Your task to perform on an android device: Open eBay Image 0: 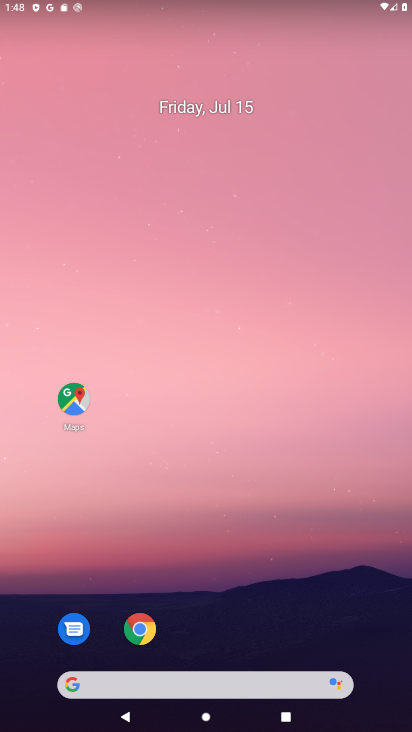
Step 0: click (139, 625)
Your task to perform on an android device: Open eBay Image 1: 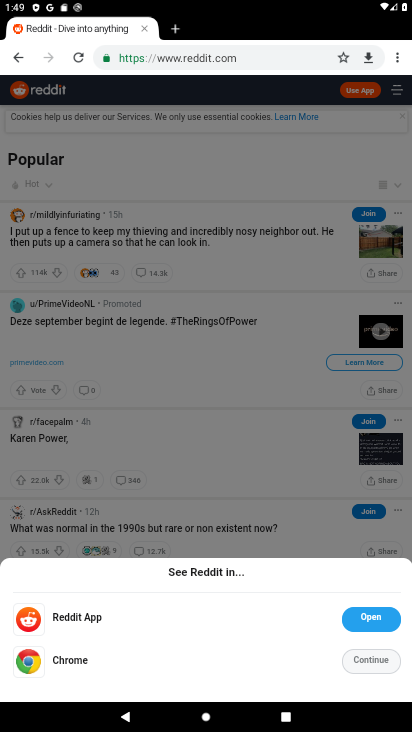
Step 1: click (225, 53)
Your task to perform on an android device: Open eBay Image 2: 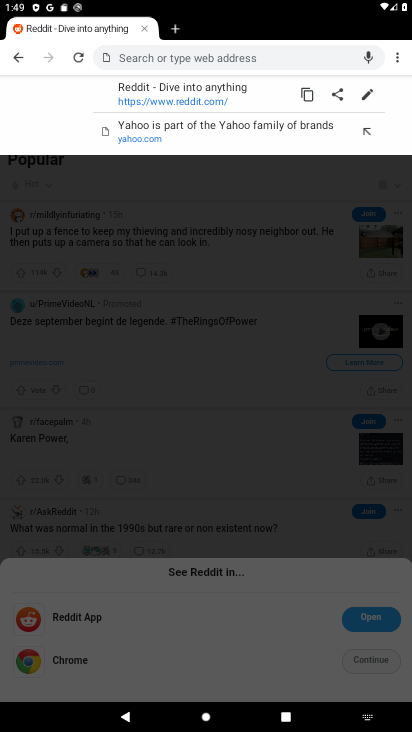
Step 2: type "www.ebay.com"
Your task to perform on an android device: Open eBay Image 3: 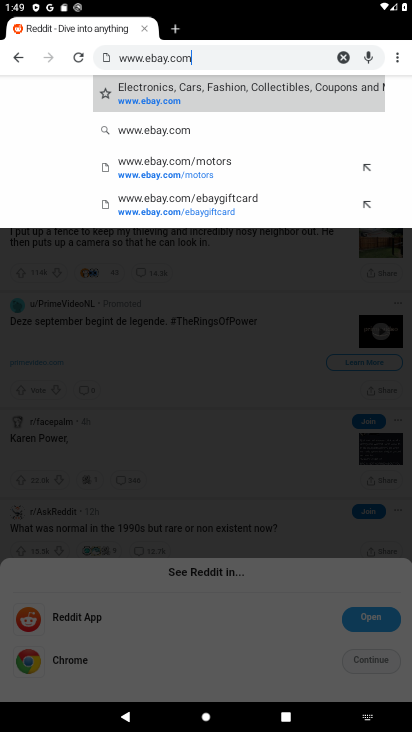
Step 3: click (174, 94)
Your task to perform on an android device: Open eBay Image 4: 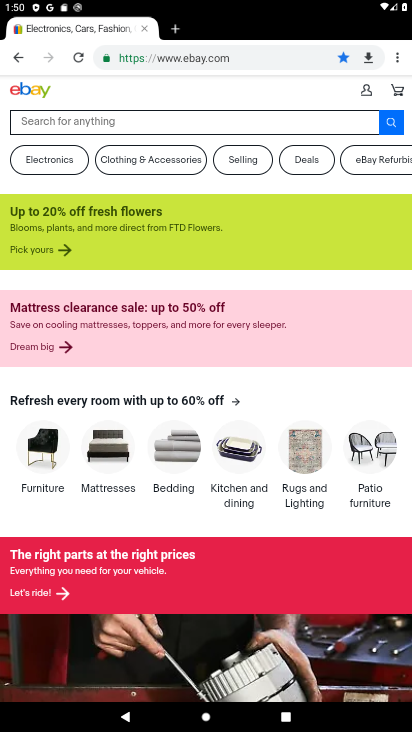
Step 4: task complete